Your task to perform on an android device: Go to calendar. Show me events next week Image 0: 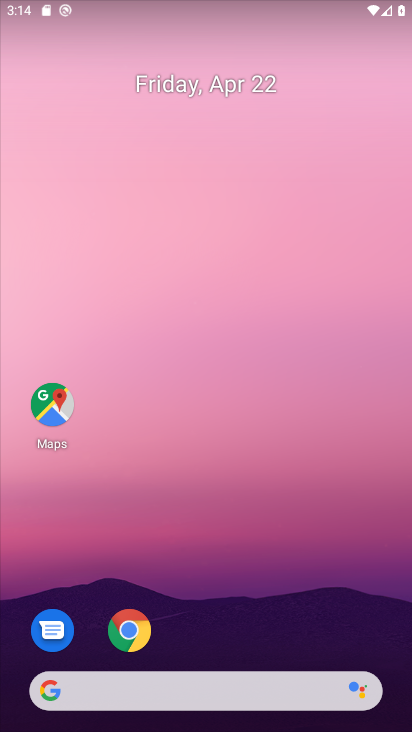
Step 0: drag from (264, 601) to (279, 166)
Your task to perform on an android device: Go to calendar. Show me events next week Image 1: 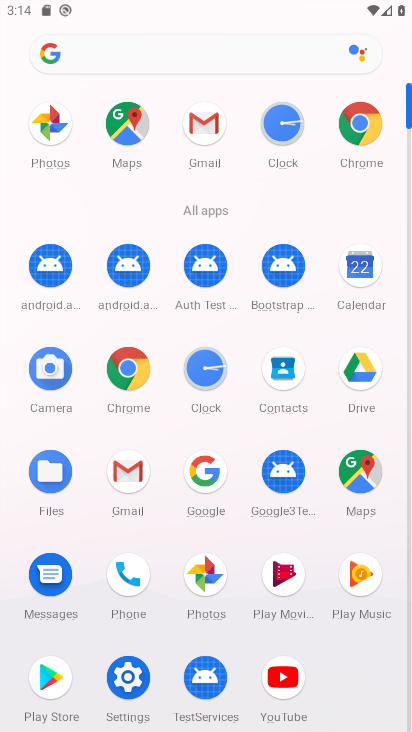
Step 1: click (377, 275)
Your task to perform on an android device: Go to calendar. Show me events next week Image 2: 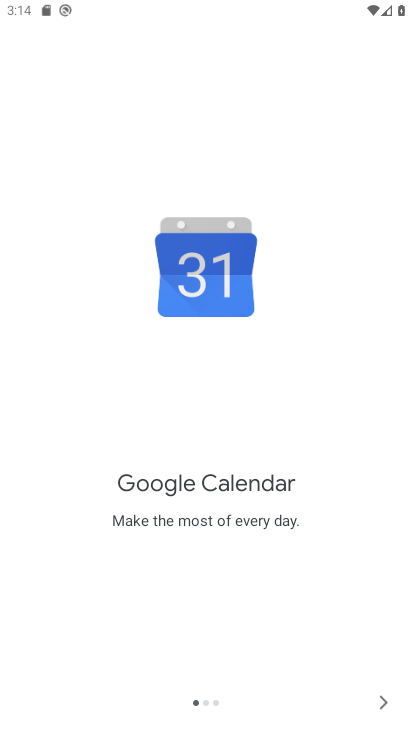
Step 2: click (380, 705)
Your task to perform on an android device: Go to calendar. Show me events next week Image 3: 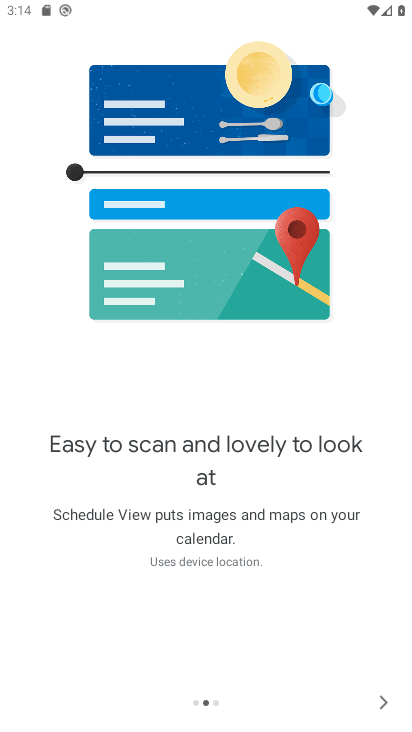
Step 3: click (380, 705)
Your task to perform on an android device: Go to calendar. Show me events next week Image 4: 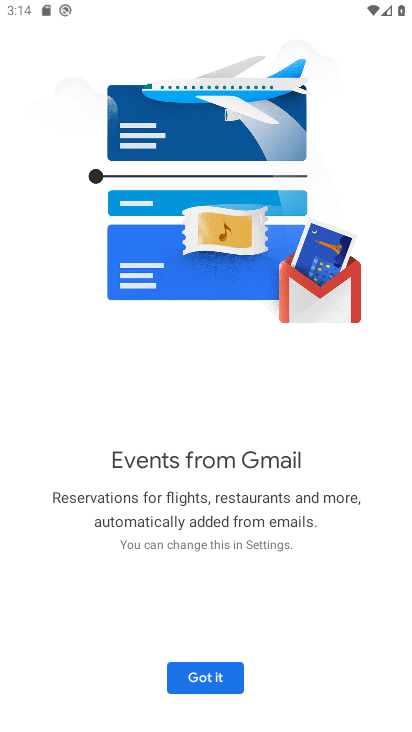
Step 4: click (225, 684)
Your task to perform on an android device: Go to calendar. Show me events next week Image 5: 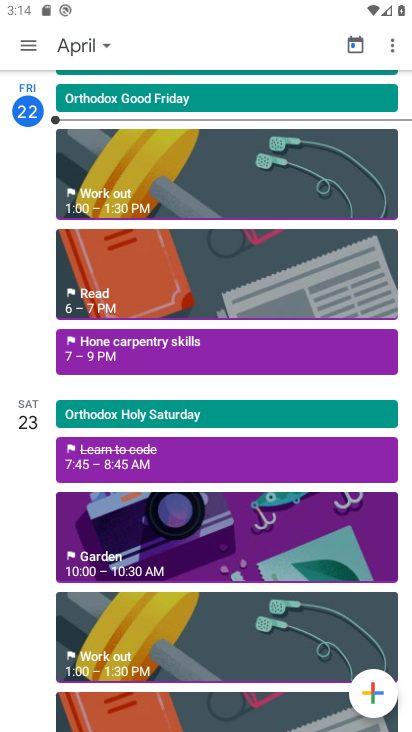
Step 5: click (70, 42)
Your task to perform on an android device: Go to calendar. Show me events next week Image 6: 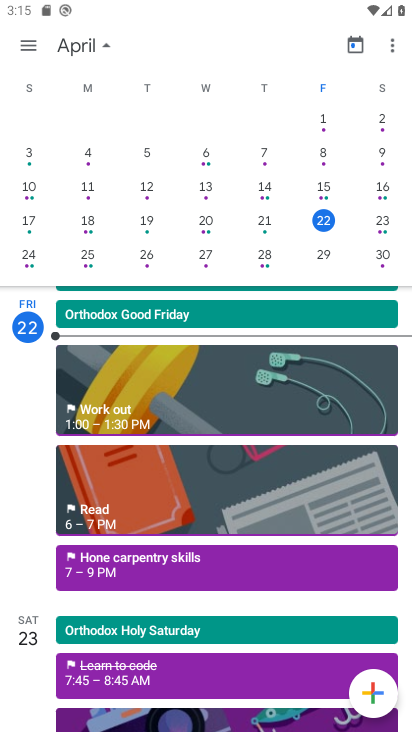
Step 6: click (41, 262)
Your task to perform on an android device: Go to calendar. Show me events next week Image 7: 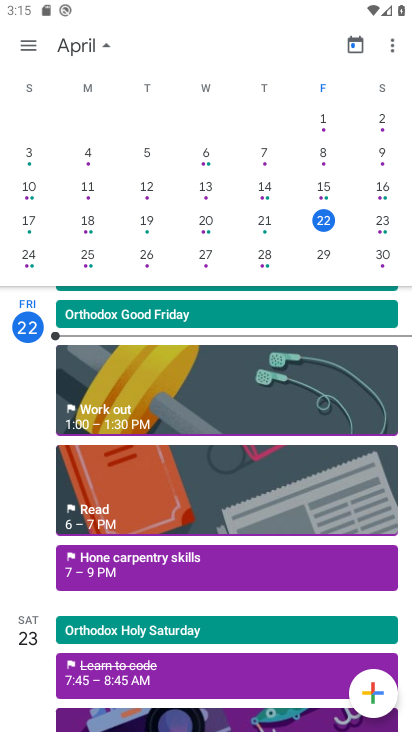
Step 7: click (30, 255)
Your task to perform on an android device: Go to calendar. Show me events next week Image 8: 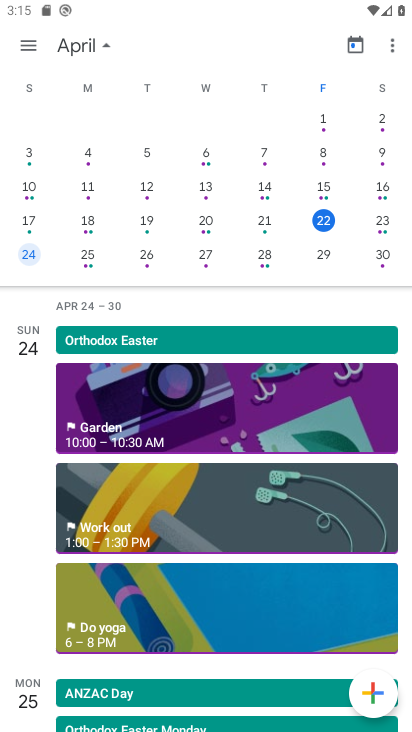
Step 8: click (90, 262)
Your task to perform on an android device: Go to calendar. Show me events next week Image 9: 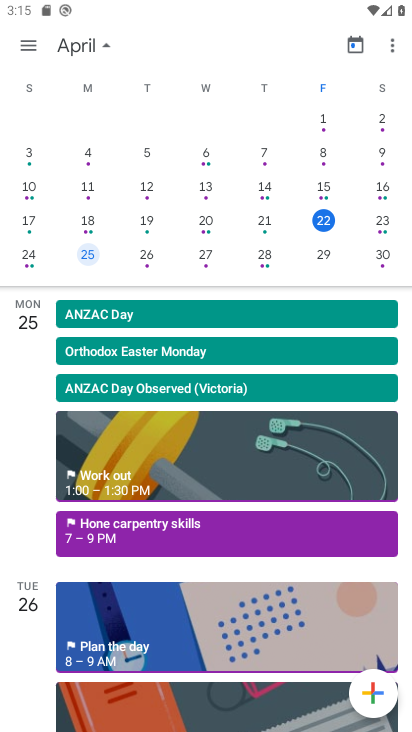
Step 9: click (144, 256)
Your task to perform on an android device: Go to calendar. Show me events next week Image 10: 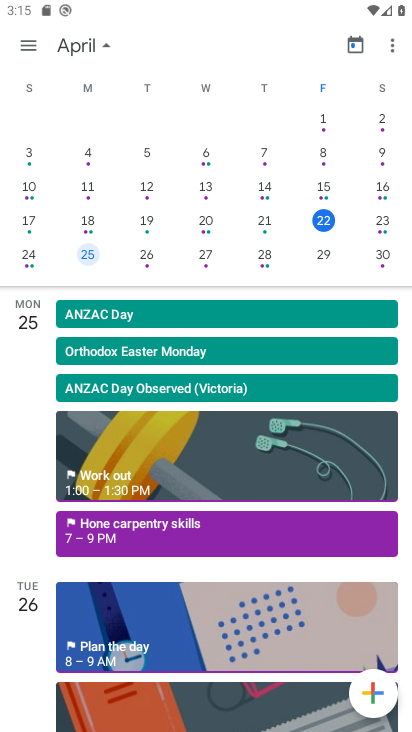
Step 10: click (146, 261)
Your task to perform on an android device: Go to calendar. Show me events next week Image 11: 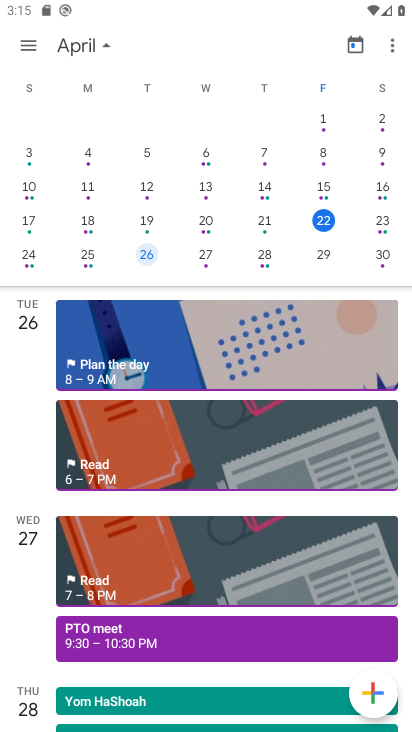
Step 11: click (207, 261)
Your task to perform on an android device: Go to calendar. Show me events next week Image 12: 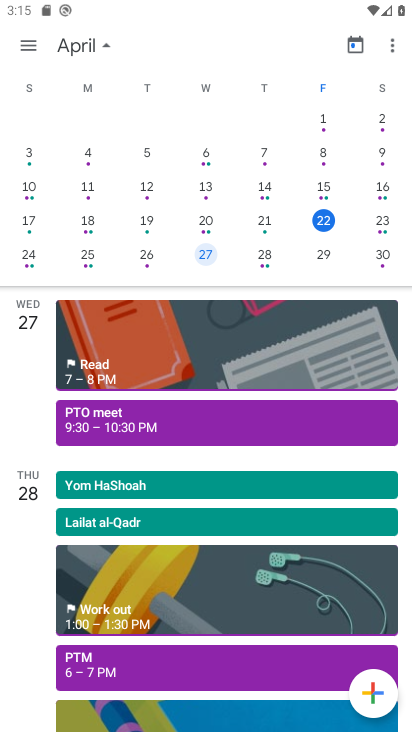
Step 12: click (263, 257)
Your task to perform on an android device: Go to calendar. Show me events next week Image 13: 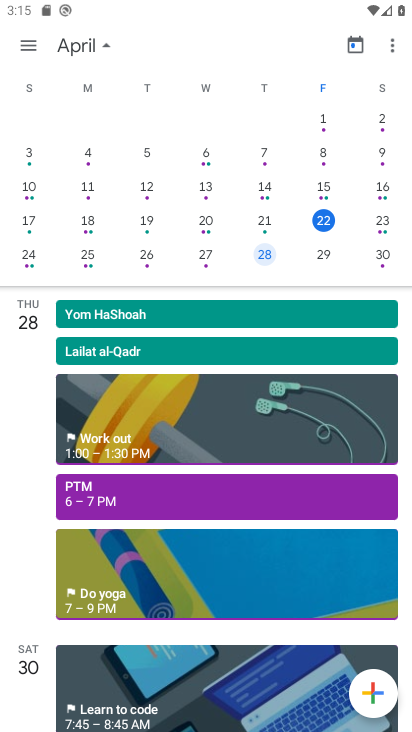
Step 13: click (329, 261)
Your task to perform on an android device: Go to calendar. Show me events next week Image 14: 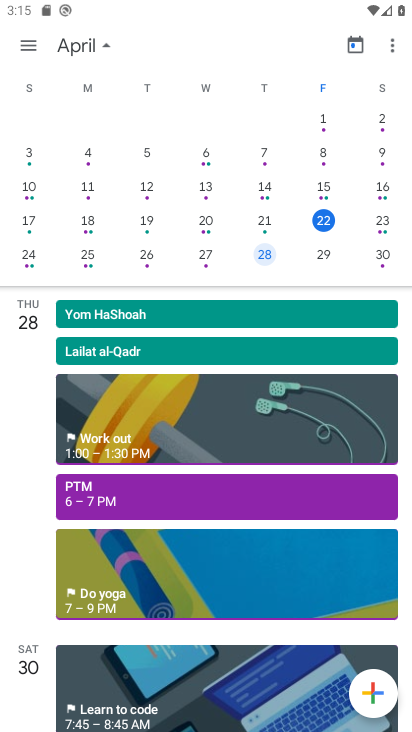
Step 14: click (316, 257)
Your task to perform on an android device: Go to calendar. Show me events next week Image 15: 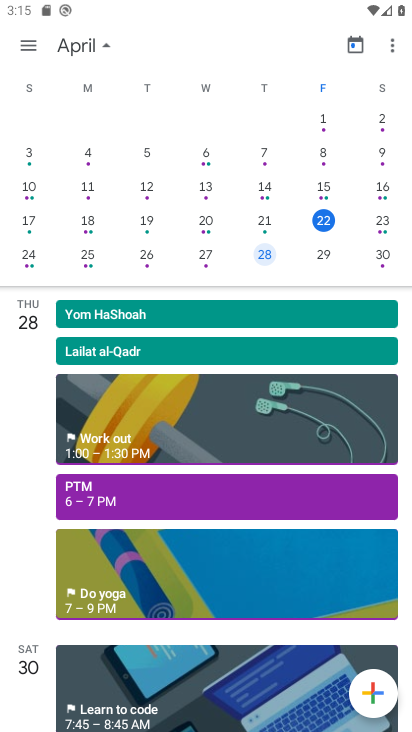
Step 15: click (332, 257)
Your task to perform on an android device: Go to calendar. Show me events next week Image 16: 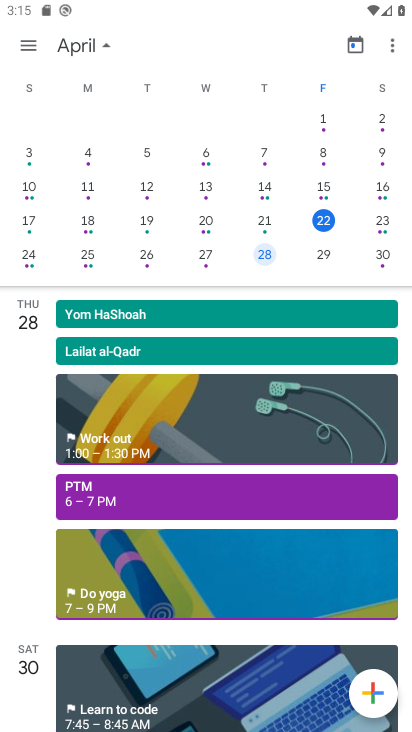
Step 16: click (327, 255)
Your task to perform on an android device: Go to calendar. Show me events next week Image 17: 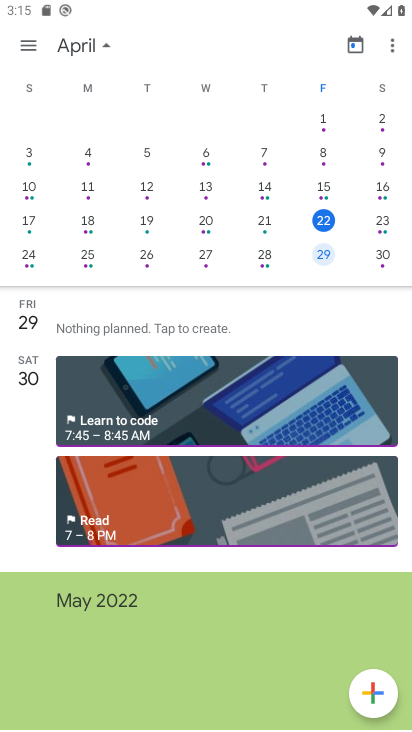
Step 17: click (381, 253)
Your task to perform on an android device: Go to calendar. Show me events next week Image 18: 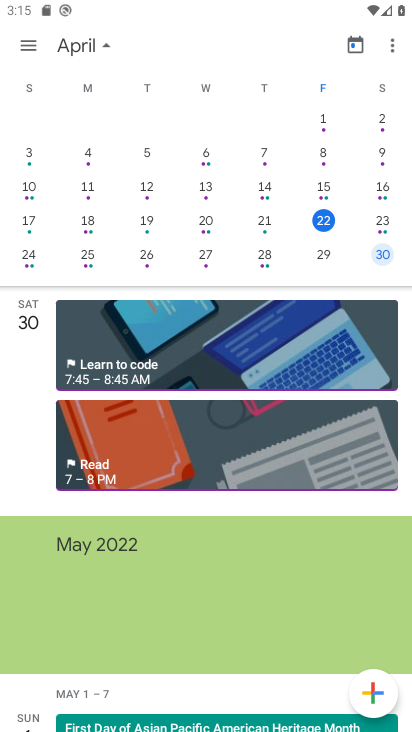
Step 18: task complete